Your task to perform on an android device: open chrome privacy settings Image 0: 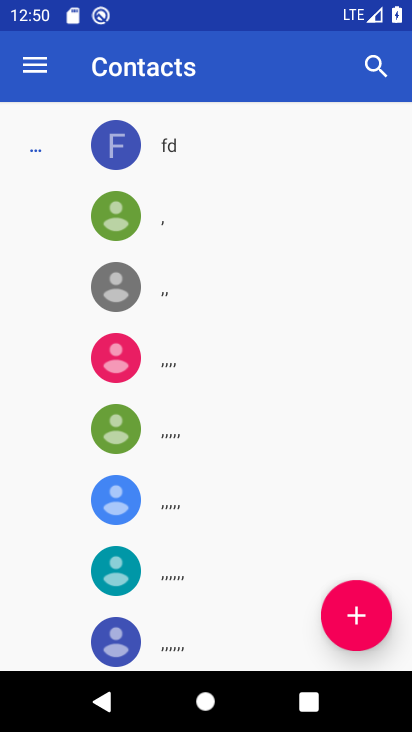
Step 0: press home button
Your task to perform on an android device: open chrome privacy settings Image 1: 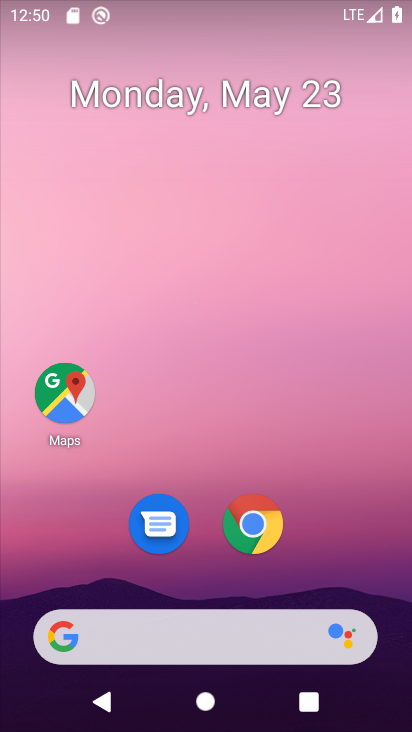
Step 1: click (260, 526)
Your task to perform on an android device: open chrome privacy settings Image 2: 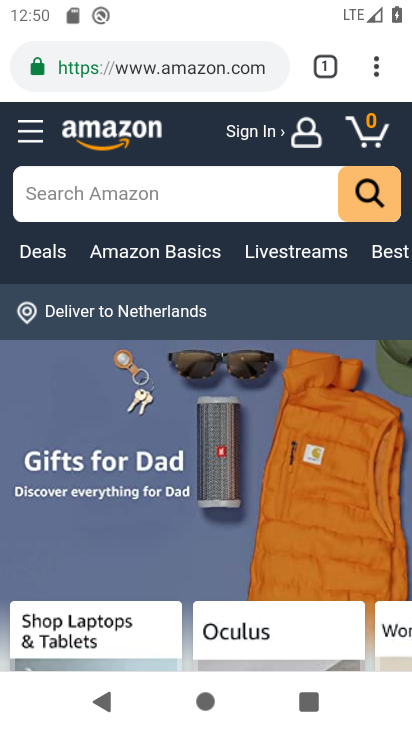
Step 2: click (372, 64)
Your task to perform on an android device: open chrome privacy settings Image 3: 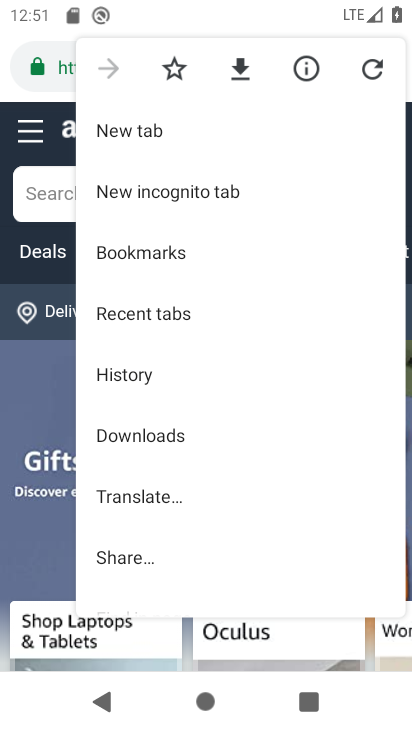
Step 3: drag from (258, 439) to (281, 107)
Your task to perform on an android device: open chrome privacy settings Image 4: 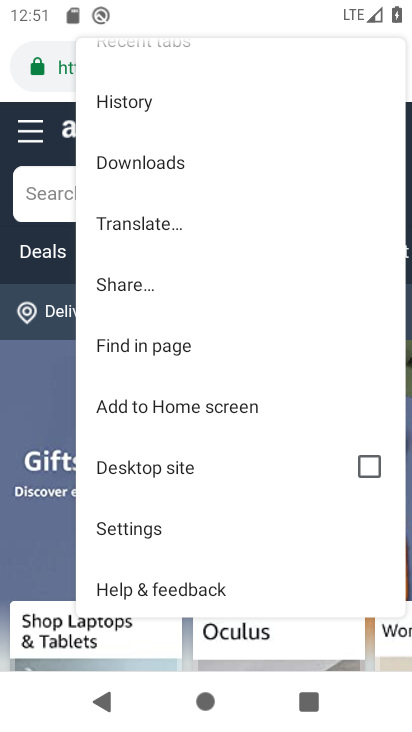
Step 4: click (173, 527)
Your task to perform on an android device: open chrome privacy settings Image 5: 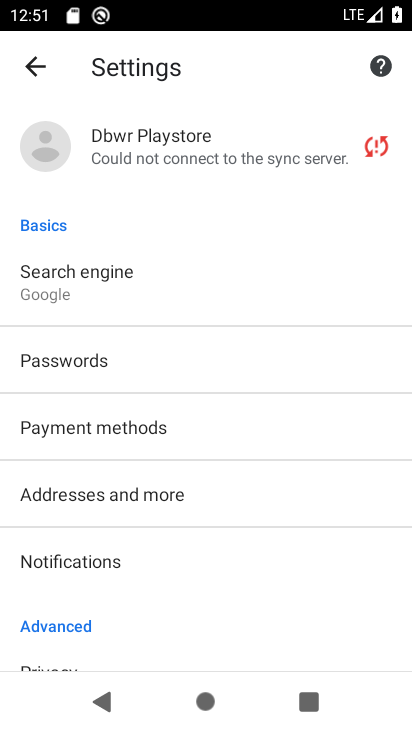
Step 5: drag from (177, 556) to (175, 388)
Your task to perform on an android device: open chrome privacy settings Image 6: 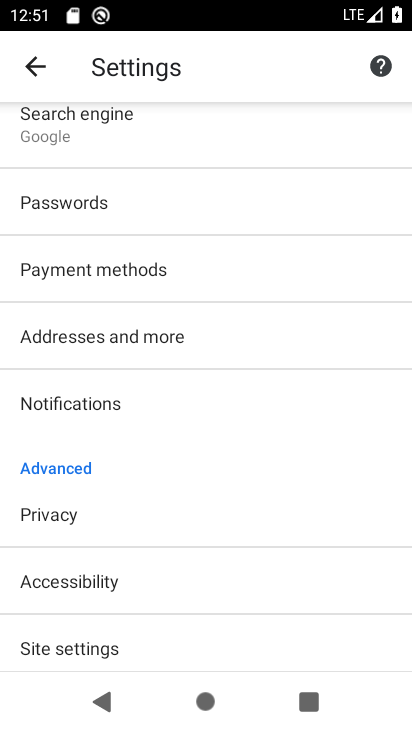
Step 6: click (152, 521)
Your task to perform on an android device: open chrome privacy settings Image 7: 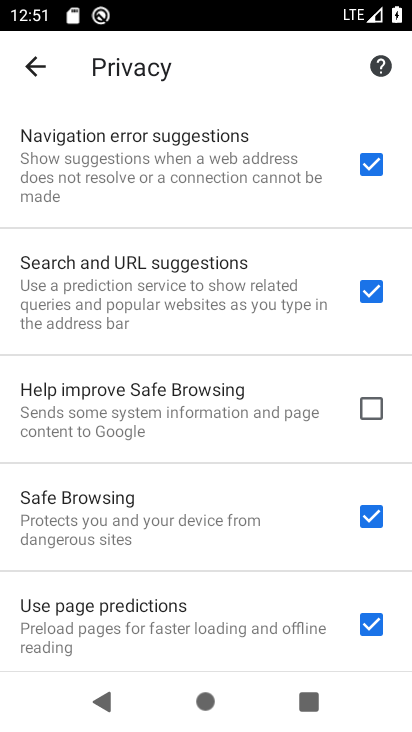
Step 7: task complete